Your task to perform on an android device: Open Google Maps Image 0: 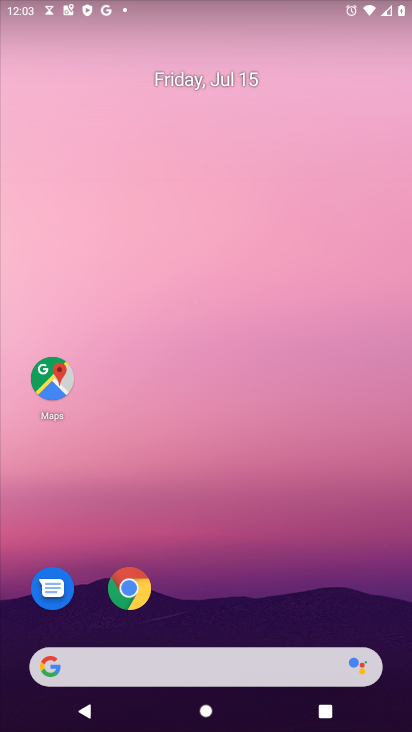
Step 0: click (53, 374)
Your task to perform on an android device: Open Google Maps Image 1: 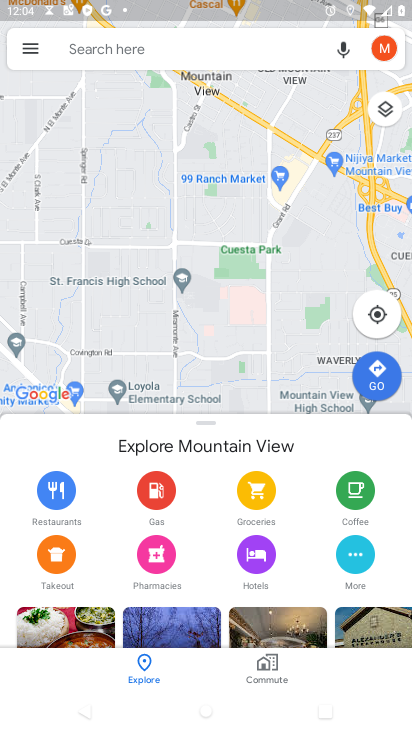
Step 1: task complete